Your task to perform on an android device: Go to privacy settings Image 0: 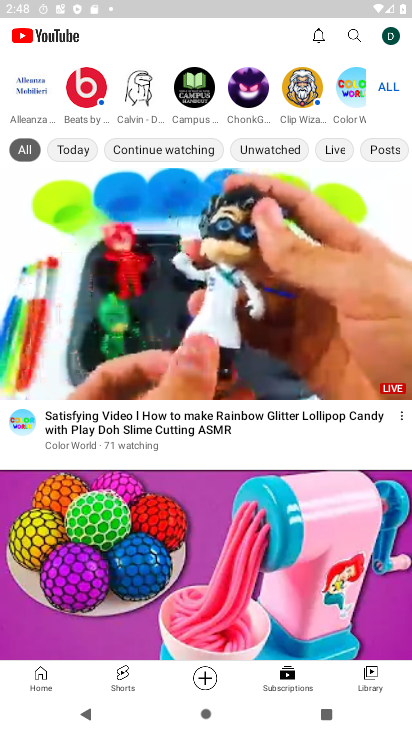
Step 0: press home button
Your task to perform on an android device: Go to privacy settings Image 1: 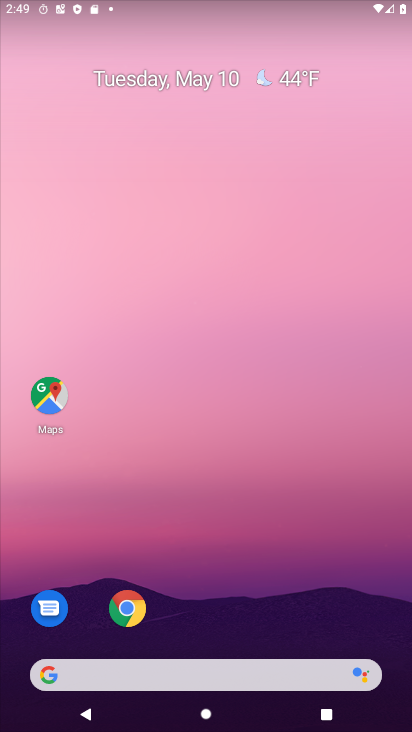
Step 1: drag from (313, 625) to (300, 7)
Your task to perform on an android device: Go to privacy settings Image 2: 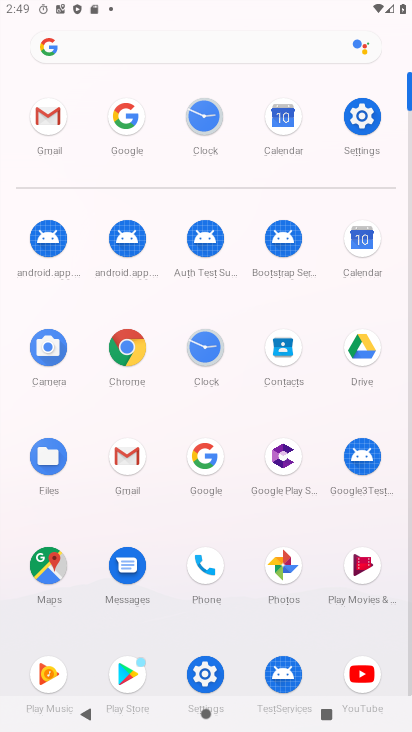
Step 2: click (358, 119)
Your task to perform on an android device: Go to privacy settings Image 3: 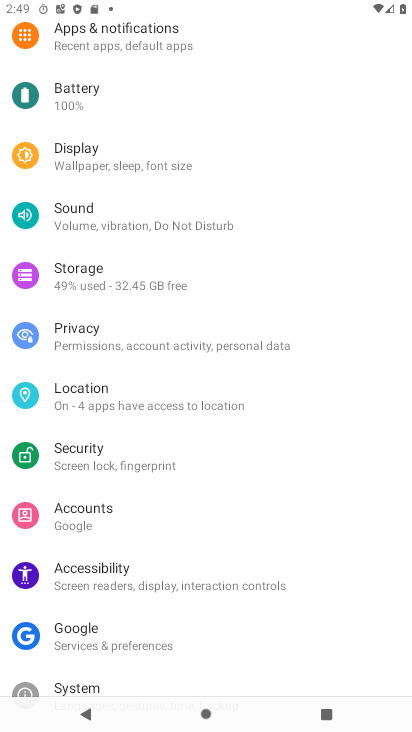
Step 3: click (91, 339)
Your task to perform on an android device: Go to privacy settings Image 4: 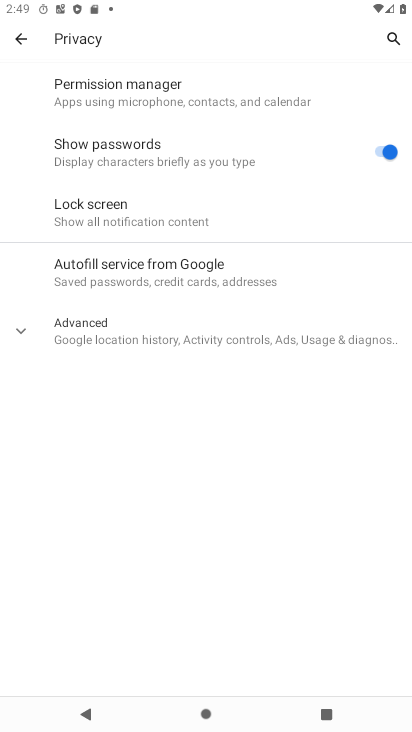
Step 4: task complete